Your task to perform on an android device: remove spam from my inbox in the gmail app Image 0: 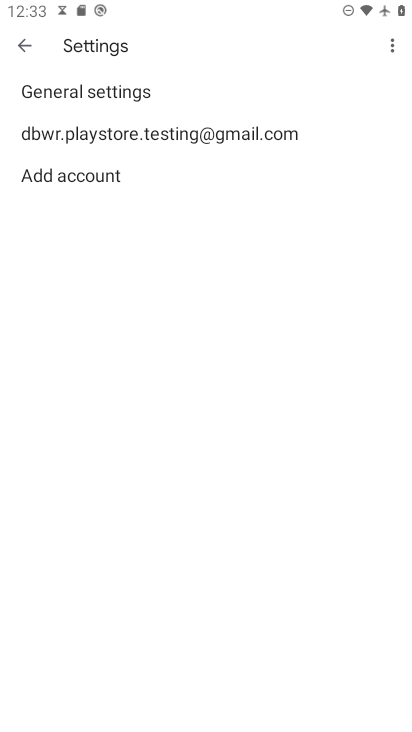
Step 0: click (25, 58)
Your task to perform on an android device: remove spam from my inbox in the gmail app Image 1: 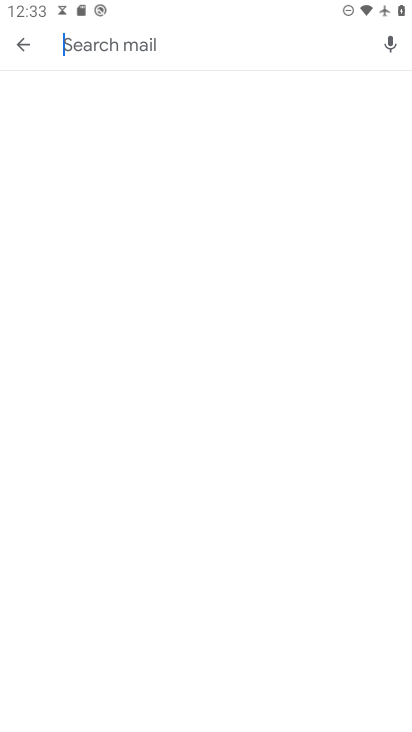
Step 1: click (27, 46)
Your task to perform on an android device: remove spam from my inbox in the gmail app Image 2: 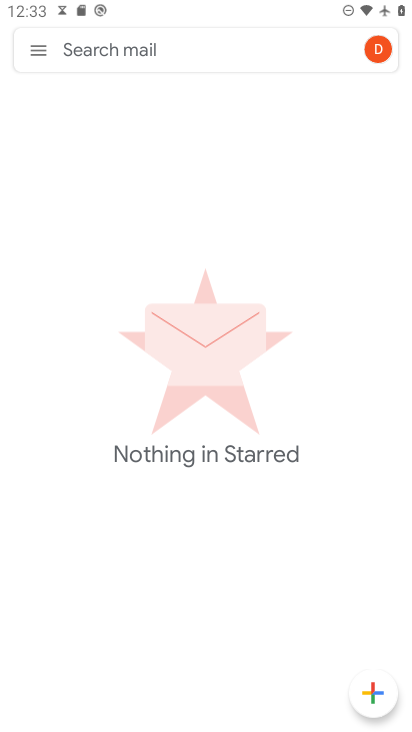
Step 2: press back button
Your task to perform on an android device: remove spam from my inbox in the gmail app Image 3: 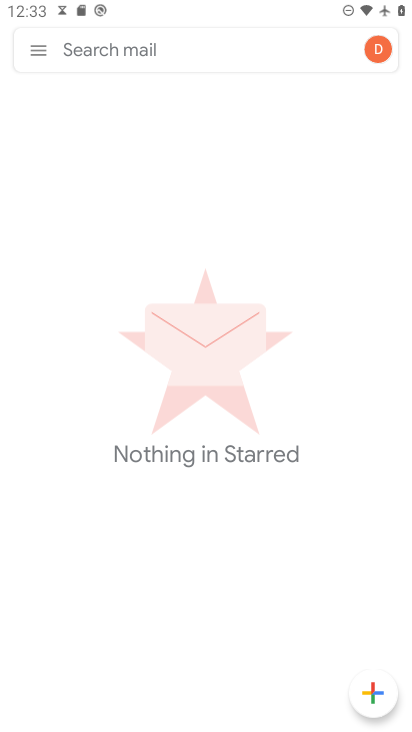
Step 3: press back button
Your task to perform on an android device: remove spam from my inbox in the gmail app Image 4: 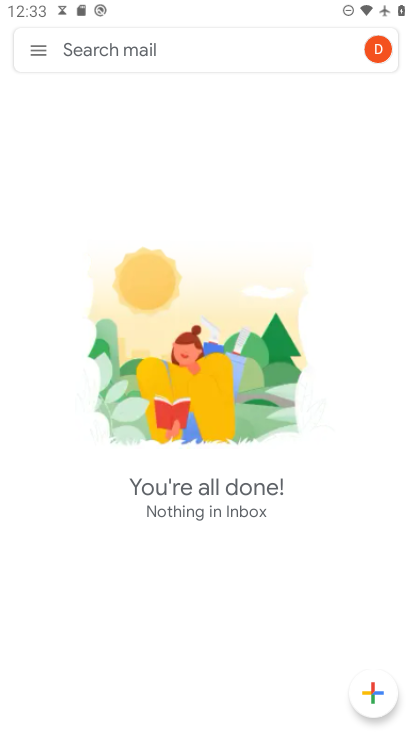
Step 4: press back button
Your task to perform on an android device: remove spam from my inbox in the gmail app Image 5: 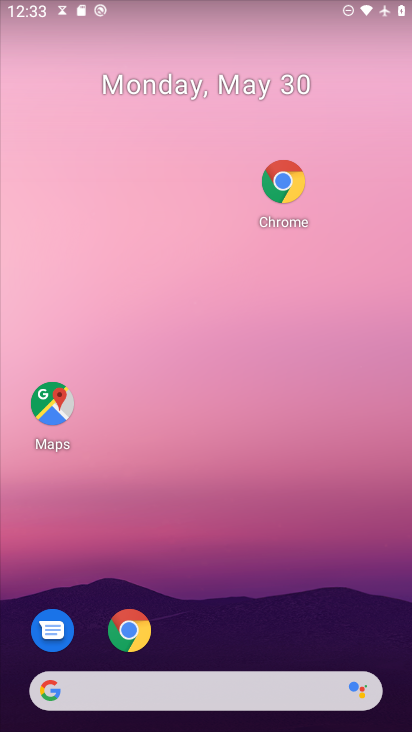
Step 5: drag from (286, 701) to (214, 225)
Your task to perform on an android device: remove spam from my inbox in the gmail app Image 6: 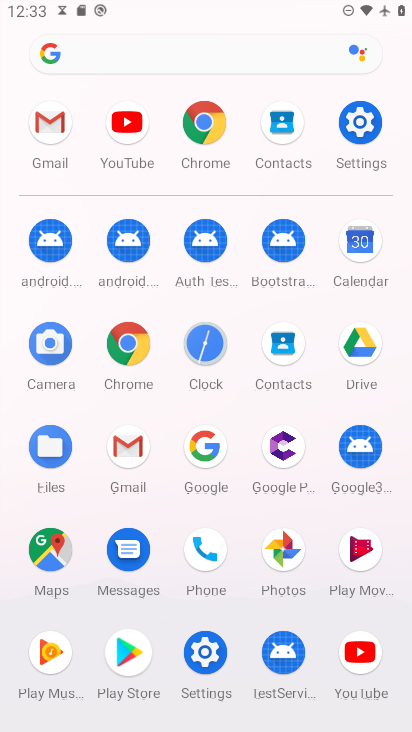
Step 6: click (127, 436)
Your task to perform on an android device: remove spam from my inbox in the gmail app Image 7: 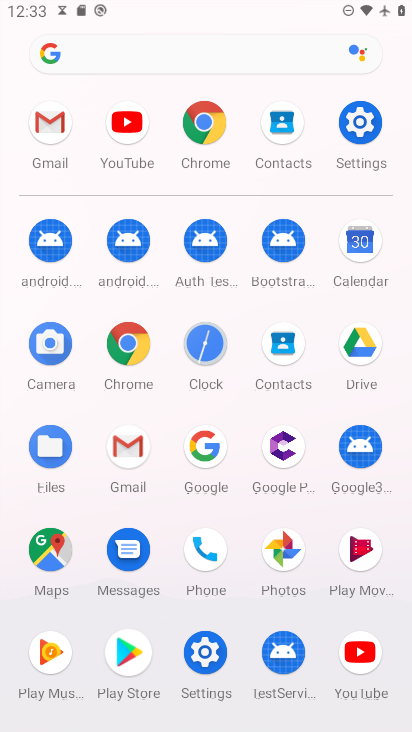
Step 7: click (128, 436)
Your task to perform on an android device: remove spam from my inbox in the gmail app Image 8: 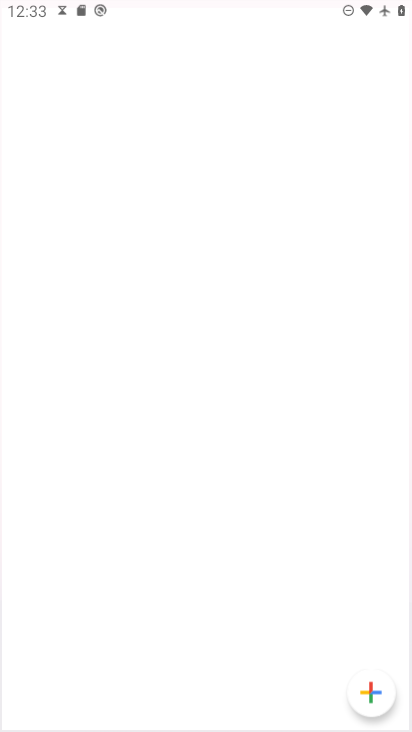
Step 8: click (131, 434)
Your task to perform on an android device: remove spam from my inbox in the gmail app Image 9: 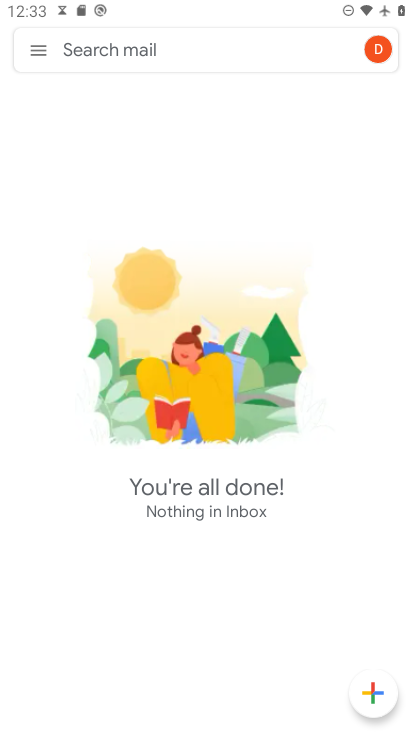
Step 9: click (33, 53)
Your task to perform on an android device: remove spam from my inbox in the gmail app Image 10: 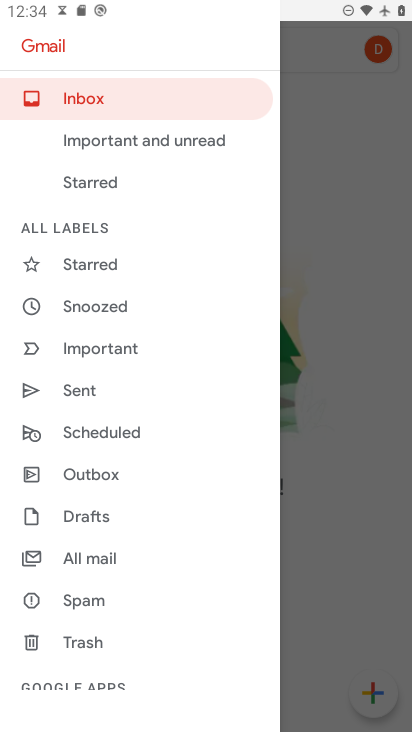
Step 10: drag from (110, 540) to (87, 264)
Your task to perform on an android device: remove spam from my inbox in the gmail app Image 11: 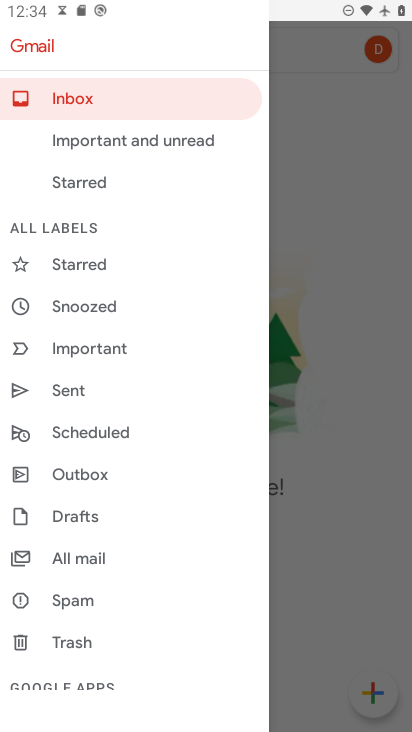
Step 11: drag from (99, 461) to (107, 207)
Your task to perform on an android device: remove spam from my inbox in the gmail app Image 12: 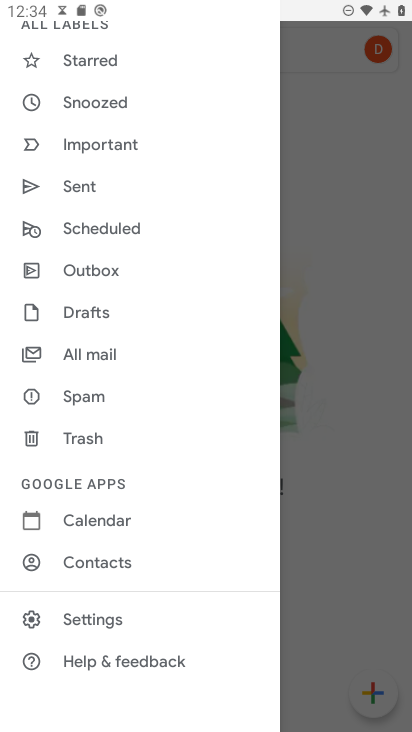
Step 12: click (77, 402)
Your task to perform on an android device: remove spam from my inbox in the gmail app Image 13: 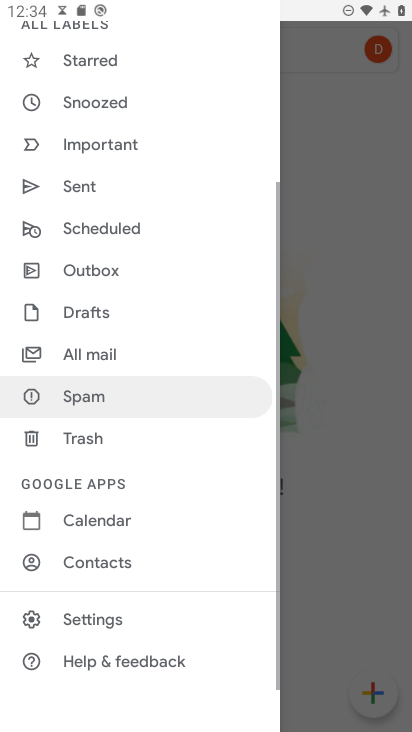
Step 13: click (77, 402)
Your task to perform on an android device: remove spam from my inbox in the gmail app Image 14: 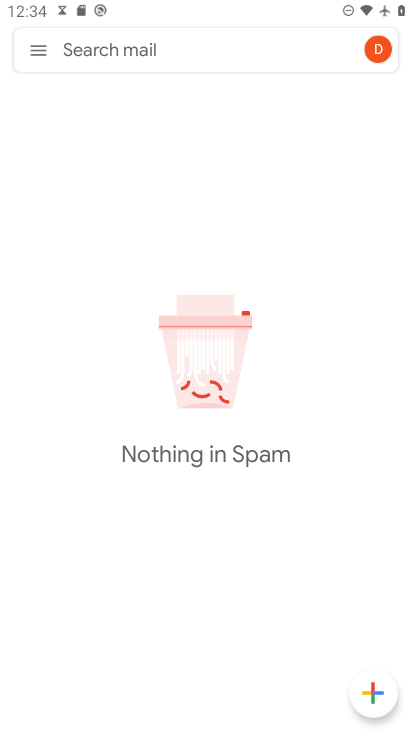
Step 14: task complete